Your task to perform on an android device: Go to calendar. Show me events next week Image 0: 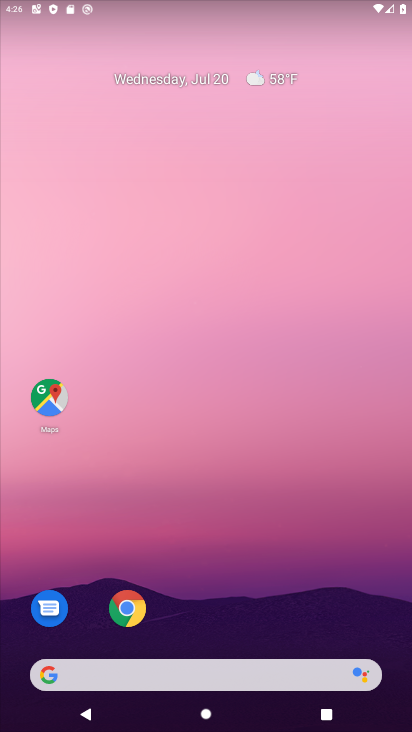
Step 0: drag from (237, 631) to (122, 16)
Your task to perform on an android device: Go to calendar. Show me events next week Image 1: 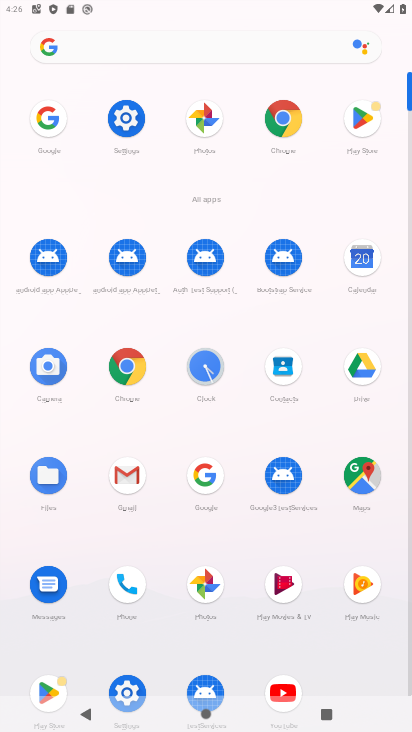
Step 1: click (362, 249)
Your task to perform on an android device: Go to calendar. Show me events next week Image 2: 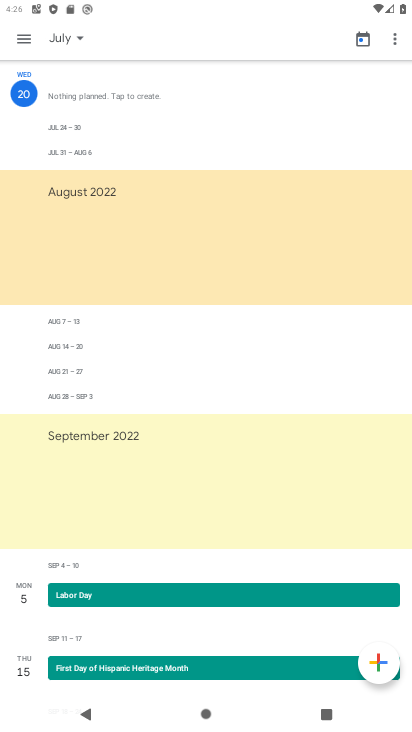
Step 2: click (24, 39)
Your task to perform on an android device: Go to calendar. Show me events next week Image 3: 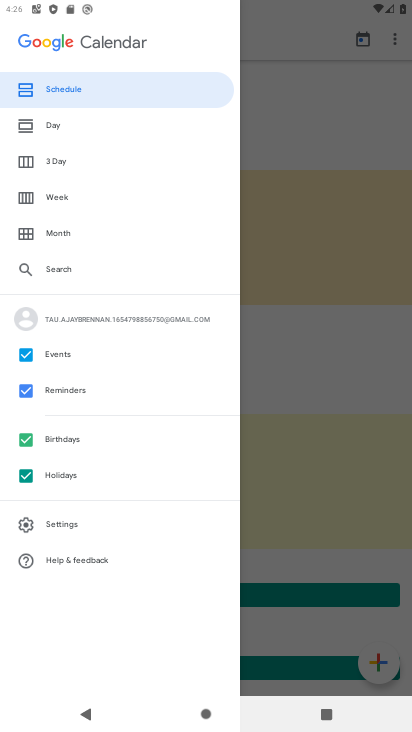
Step 3: click (51, 192)
Your task to perform on an android device: Go to calendar. Show me events next week Image 4: 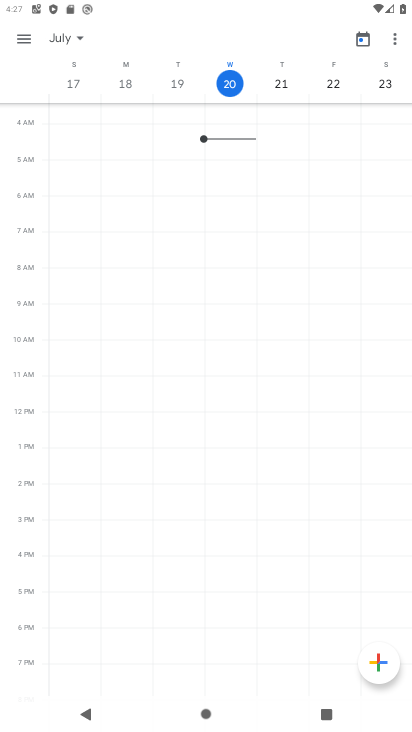
Step 4: task complete